Your task to perform on an android device: Open Google Maps and go to "Timeline" Image 0: 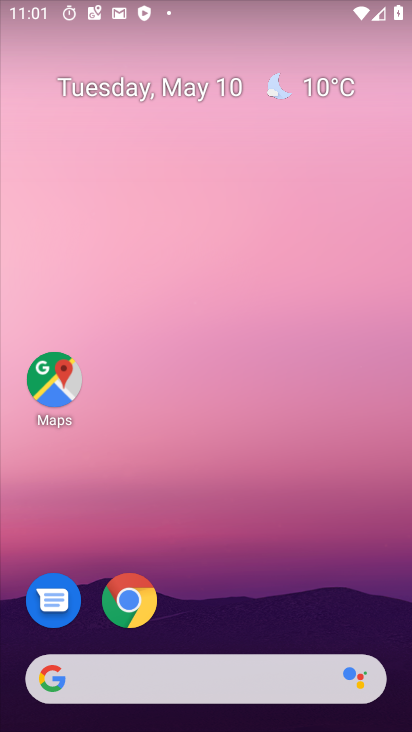
Step 0: drag from (290, 574) to (3, 176)
Your task to perform on an android device: Open Google Maps and go to "Timeline" Image 1: 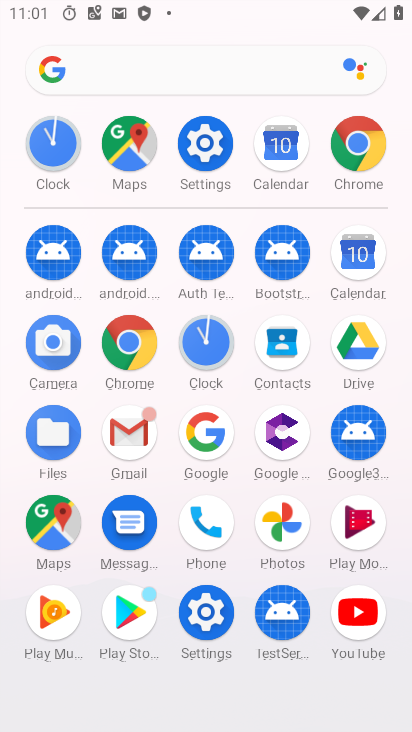
Step 1: drag from (16, 550) to (10, 242)
Your task to perform on an android device: Open Google Maps and go to "Timeline" Image 2: 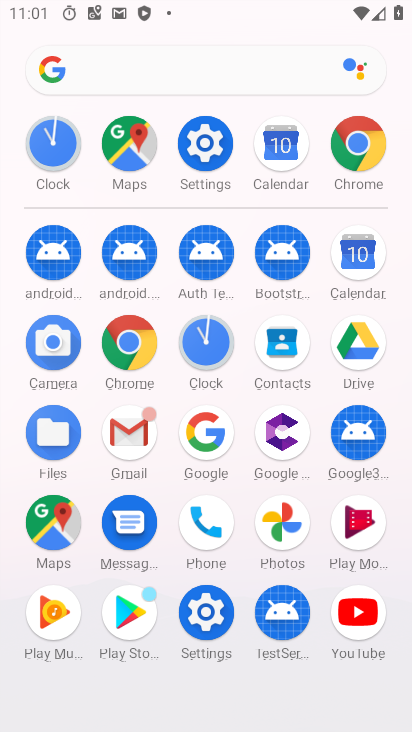
Step 2: click (48, 523)
Your task to perform on an android device: Open Google Maps and go to "Timeline" Image 3: 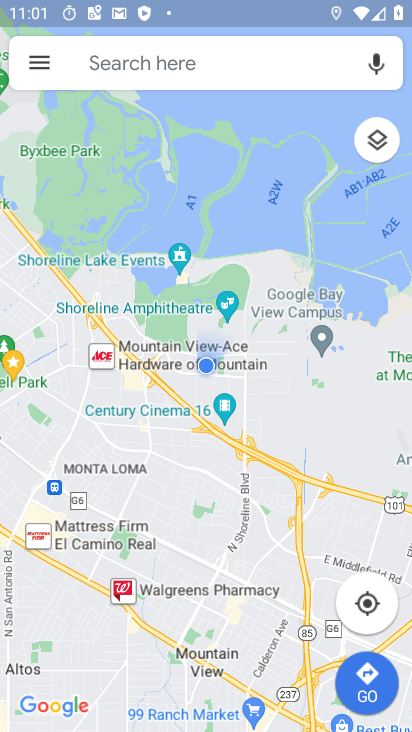
Step 3: click (34, 60)
Your task to perform on an android device: Open Google Maps and go to "Timeline" Image 4: 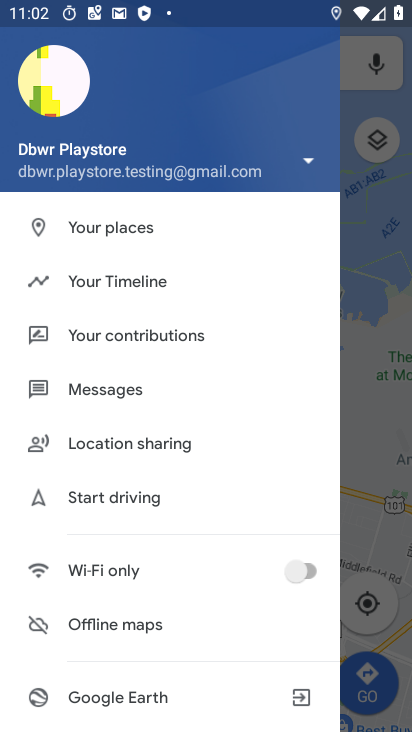
Step 4: click (145, 277)
Your task to perform on an android device: Open Google Maps and go to "Timeline" Image 5: 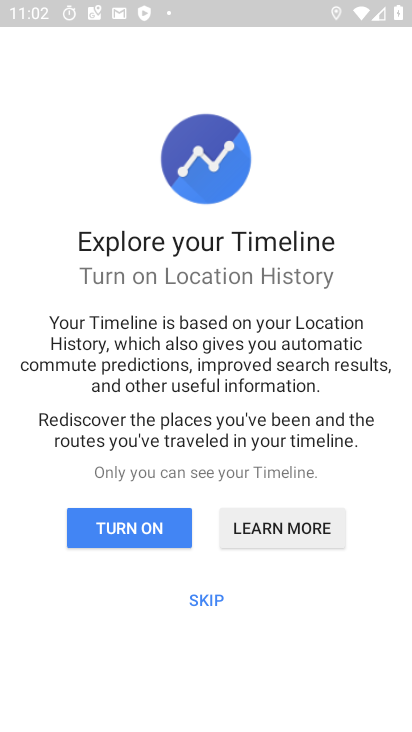
Step 5: click (143, 521)
Your task to perform on an android device: Open Google Maps and go to "Timeline" Image 6: 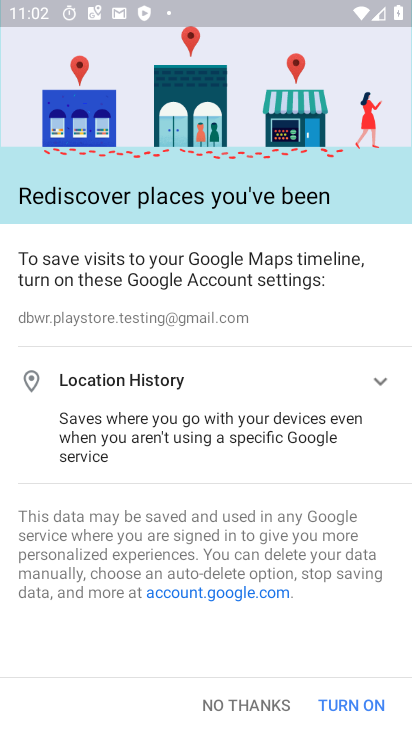
Step 6: click (348, 710)
Your task to perform on an android device: Open Google Maps and go to "Timeline" Image 7: 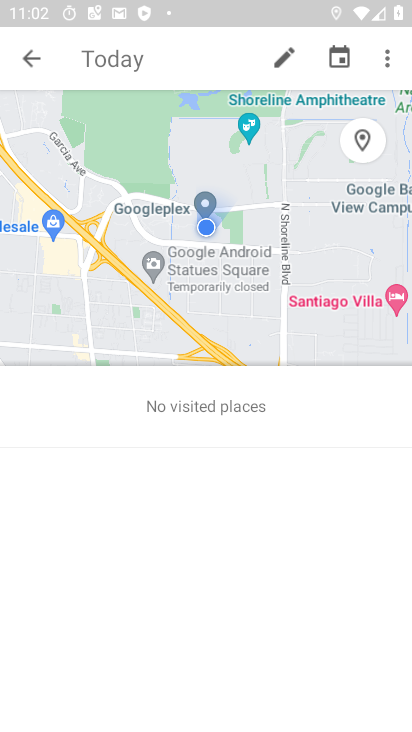
Step 7: task complete